Your task to perform on an android device: Open privacy settings Image 0: 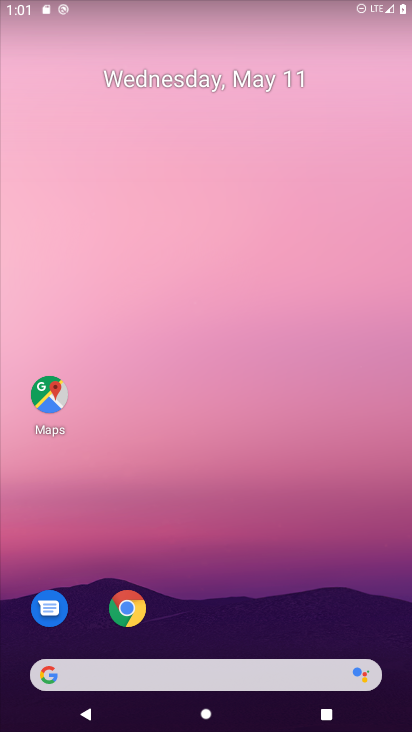
Step 0: drag from (305, 527) to (325, 52)
Your task to perform on an android device: Open privacy settings Image 1: 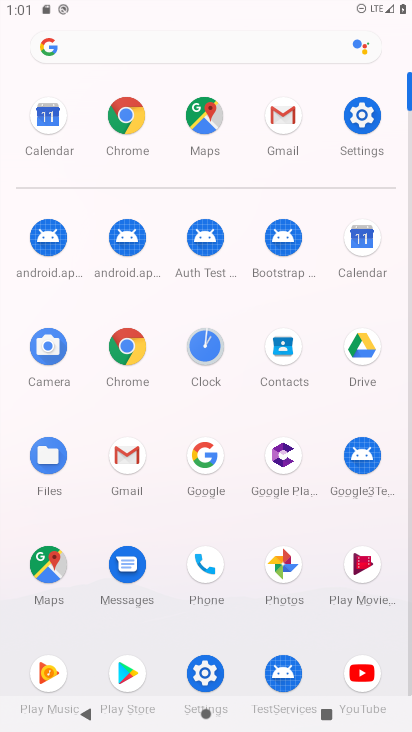
Step 1: click (361, 118)
Your task to perform on an android device: Open privacy settings Image 2: 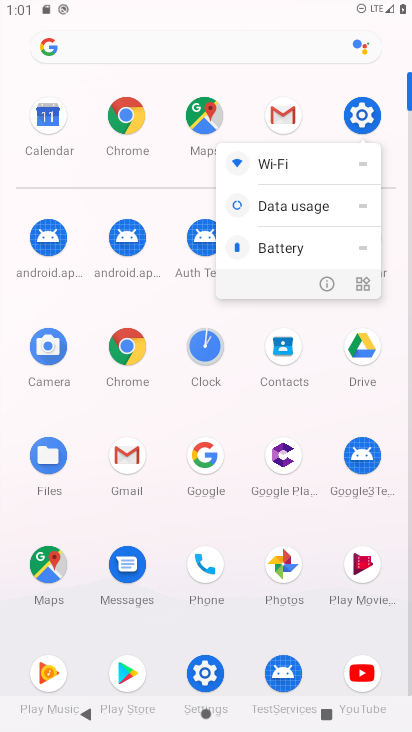
Step 2: click (366, 110)
Your task to perform on an android device: Open privacy settings Image 3: 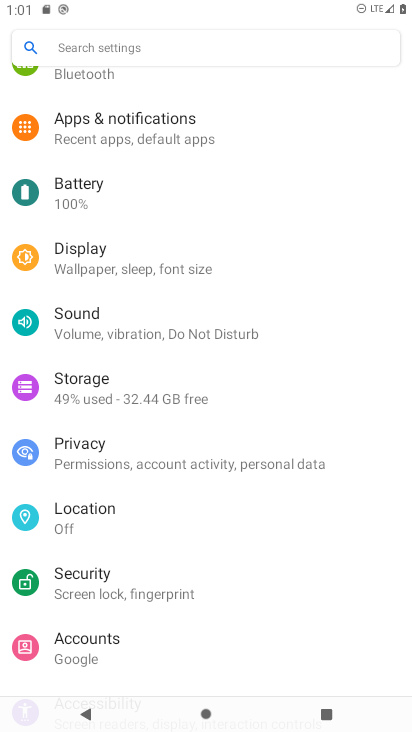
Step 3: click (157, 462)
Your task to perform on an android device: Open privacy settings Image 4: 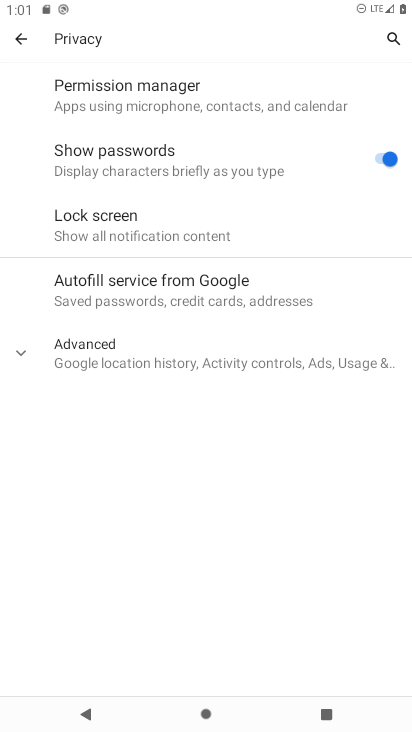
Step 4: task complete